Your task to perform on an android device: turn on location history Image 0: 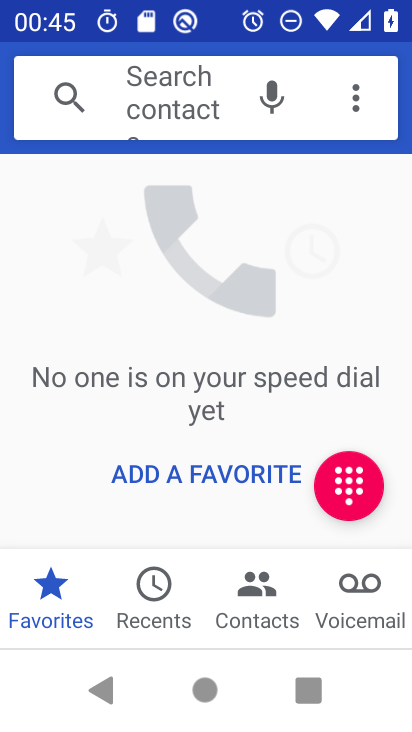
Step 0: press home button
Your task to perform on an android device: turn on location history Image 1: 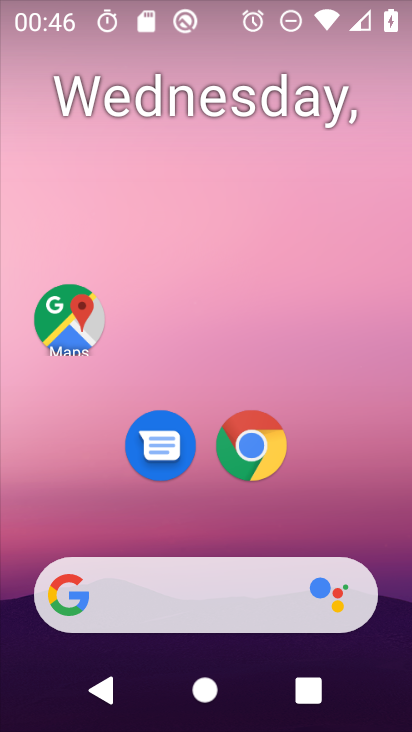
Step 1: drag from (288, 529) to (372, 62)
Your task to perform on an android device: turn on location history Image 2: 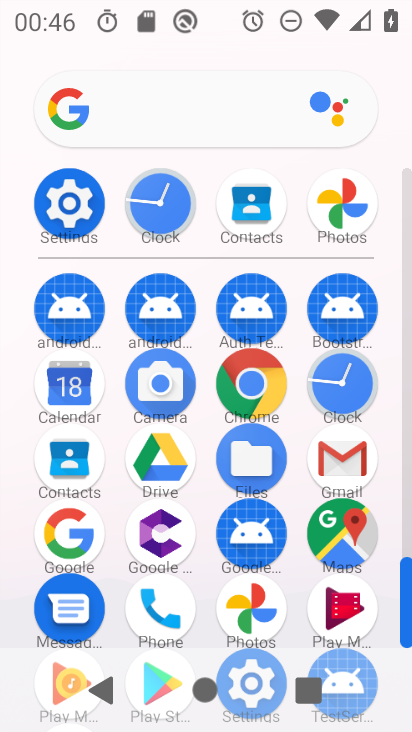
Step 2: click (80, 187)
Your task to perform on an android device: turn on location history Image 3: 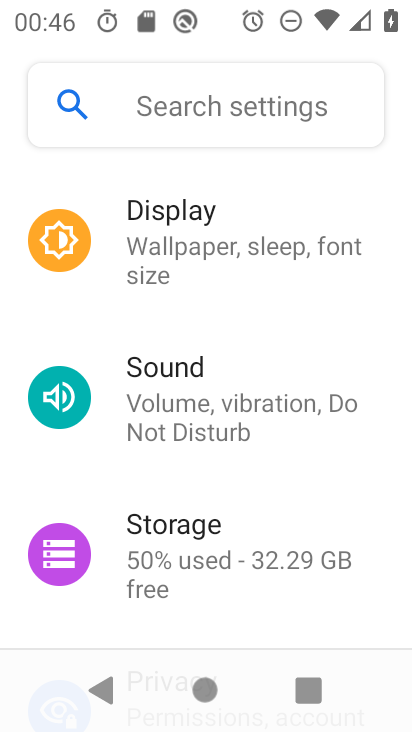
Step 3: drag from (307, 539) to (277, 335)
Your task to perform on an android device: turn on location history Image 4: 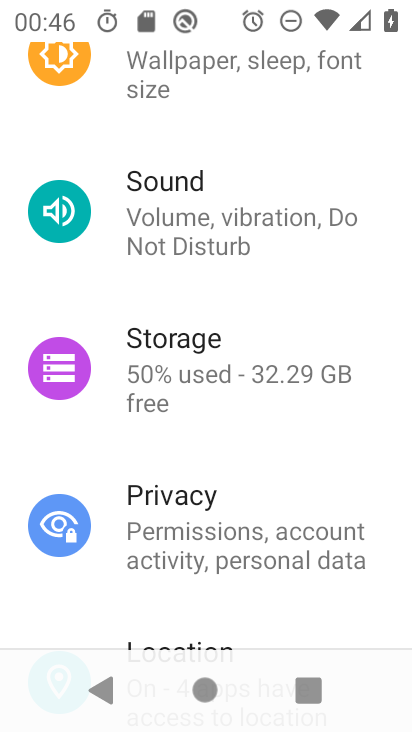
Step 4: drag from (358, 584) to (337, 319)
Your task to perform on an android device: turn on location history Image 5: 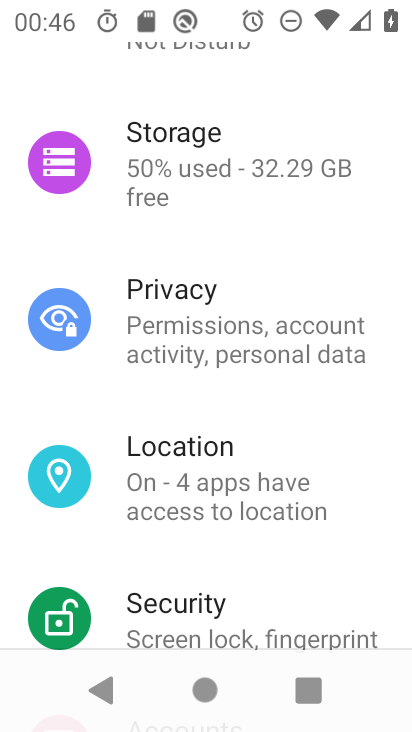
Step 5: click (271, 463)
Your task to perform on an android device: turn on location history Image 6: 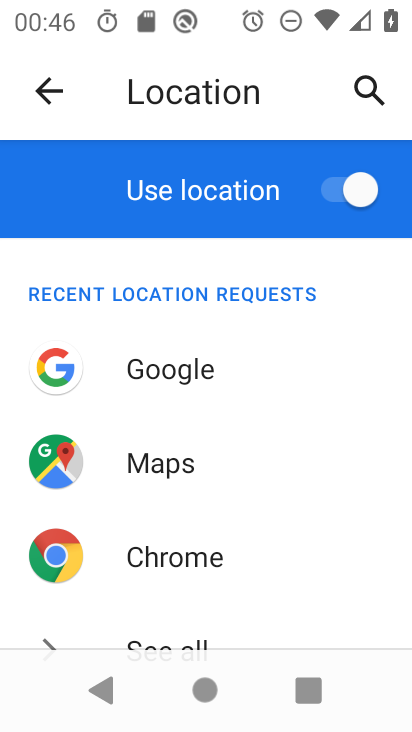
Step 6: drag from (300, 597) to (346, 217)
Your task to perform on an android device: turn on location history Image 7: 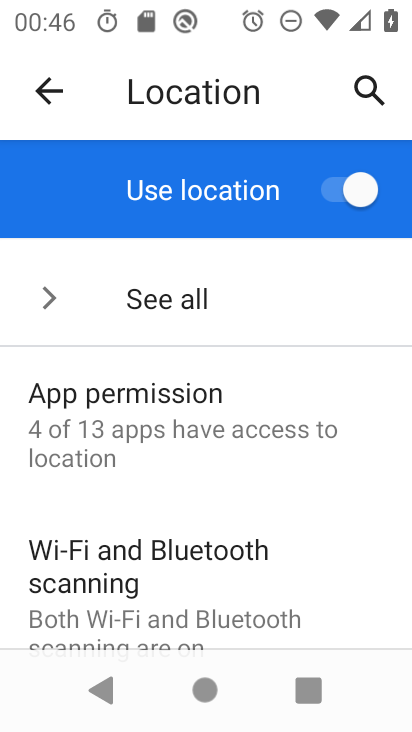
Step 7: drag from (243, 576) to (249, 222)
Your task to perform on an android device: turn on location history Image 8: 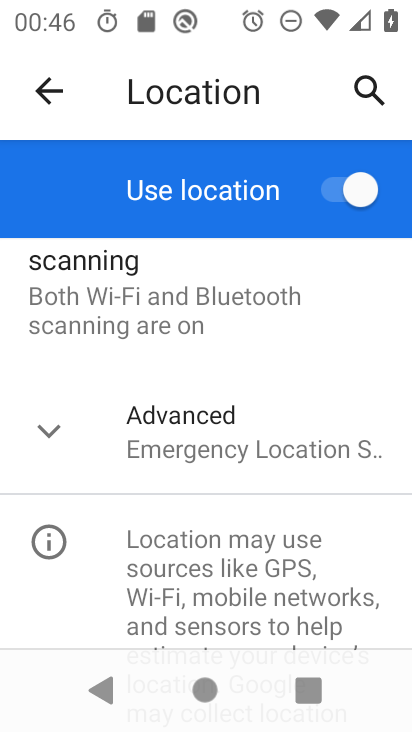
Step 8: click (323, 434)
Your task to perform on an android device: turn on location history Image 9: 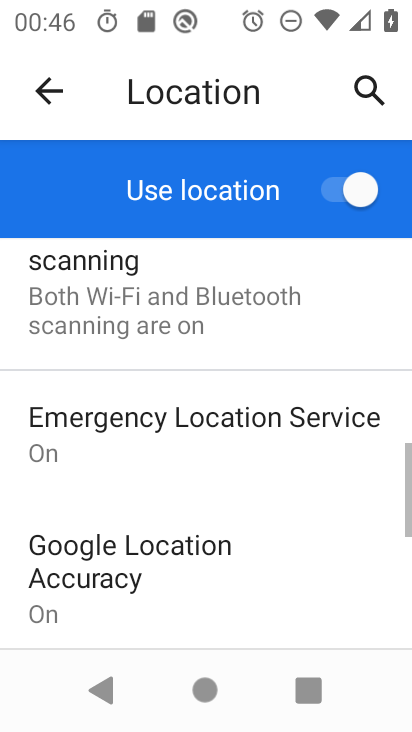
Step 9: drag from (321, 599) to (354, 307)
Your task to perform on an android device: turn on location history Image 10: 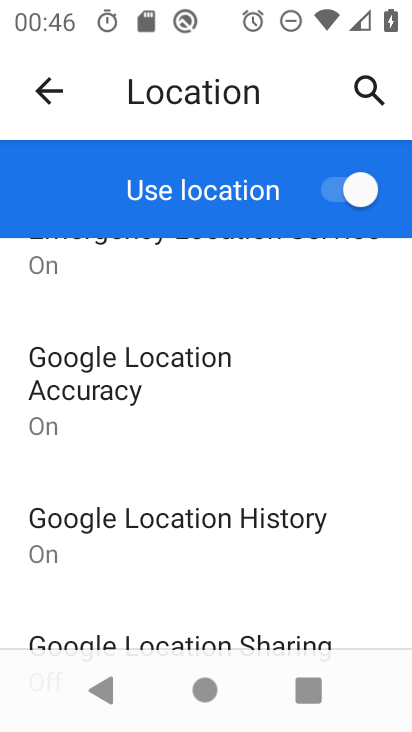
Step 10: click (198, 512)
Your task to perform on an android device: turn on location history Image 11: 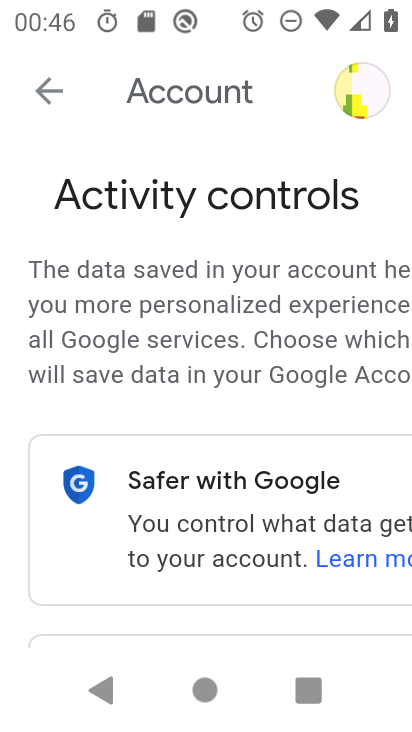
Step 11: drag from (158, 598) to (183, 242)
Your task to perform on an android device: turn on location history Image 12: 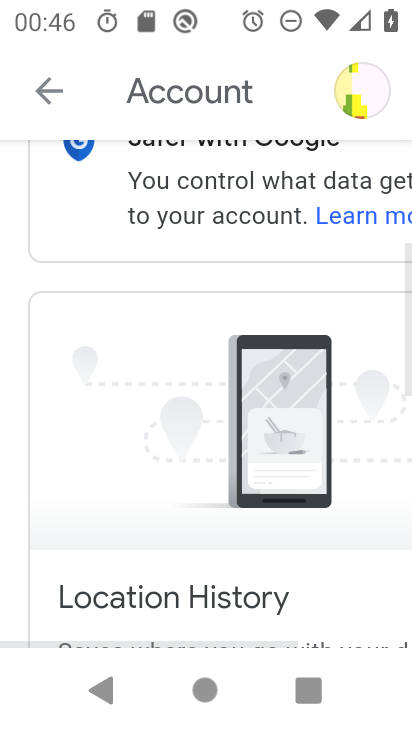
Step 12: drag from (280, 676) to (290, 295)
Your task to perform on an android device: turn on location history Image 13: 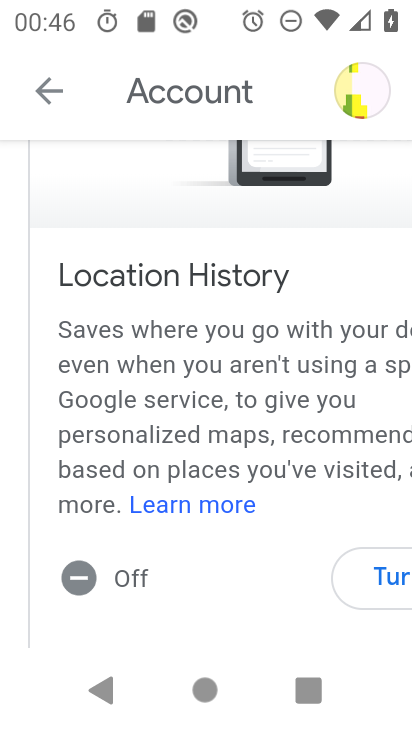
Step 13: click (390, 577)
Your task to perform on an android device: turn on location history Image 14: 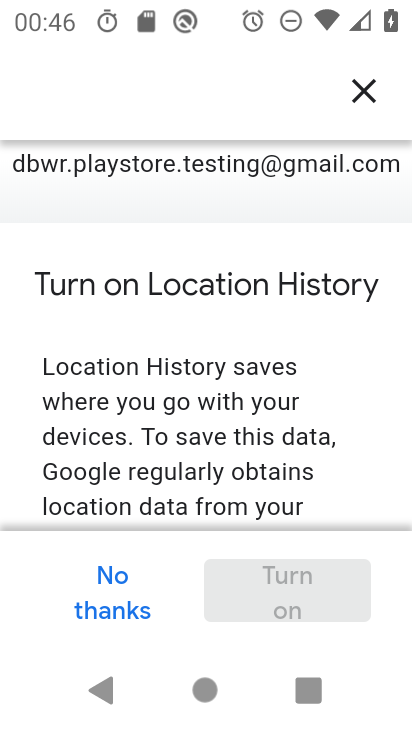
Step 14: drag from (296, 484) to (410, 328)
Your task to perform on an android device: turn on location history Image 15: 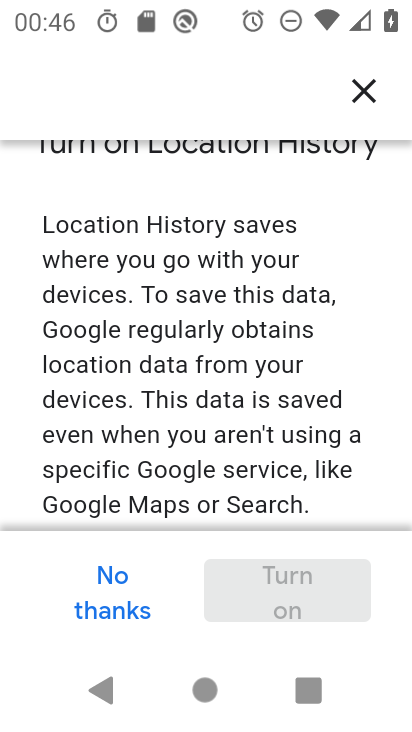
Step 15: drag from (290, 470) to (222, 126)
Your task to perform on an android device: turn on location history Image 16: 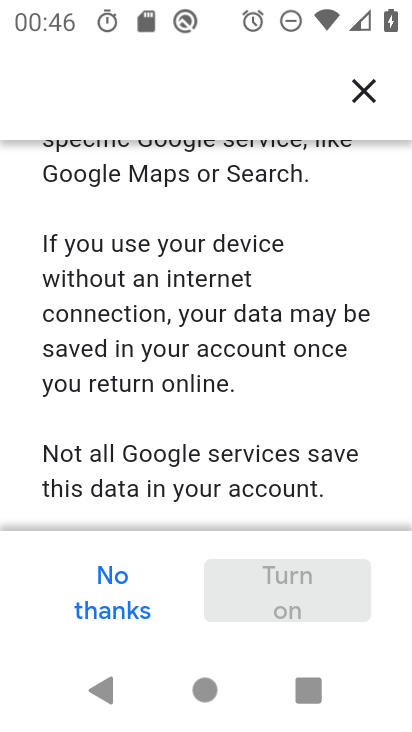
Step 16: drag from (243, 379) to (205, 122)
Your task to perform on an android device: turn on location history Image 17: 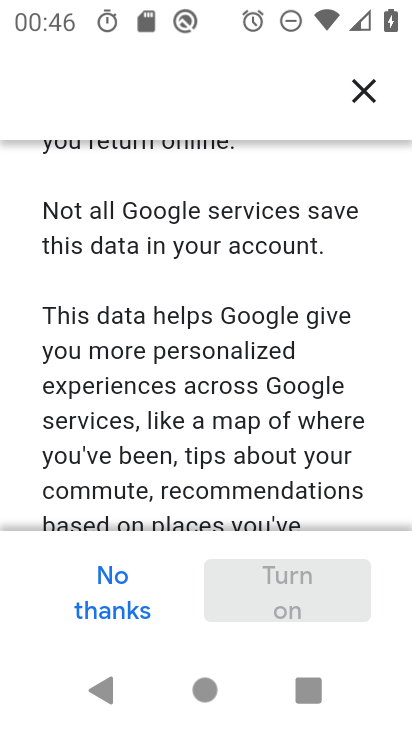
Step 17: drag from (241, 395) to (248, 221)
Your task to perform on an android device: turn on location history Image 18: 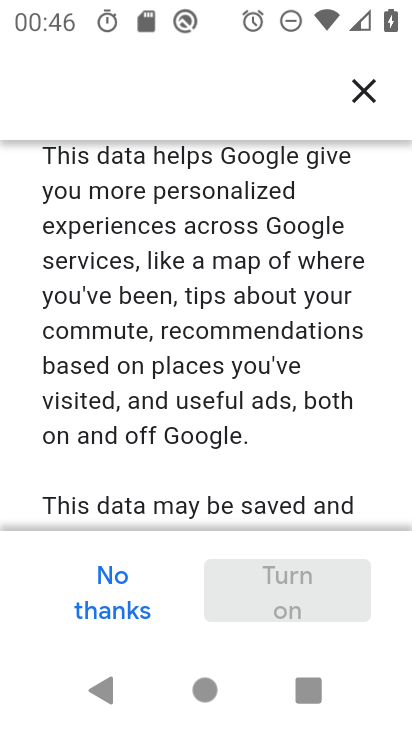
Step 18: drag from (287, 412) to (303, 265)
Your task to perform on an android device: turn on location history Image 19: 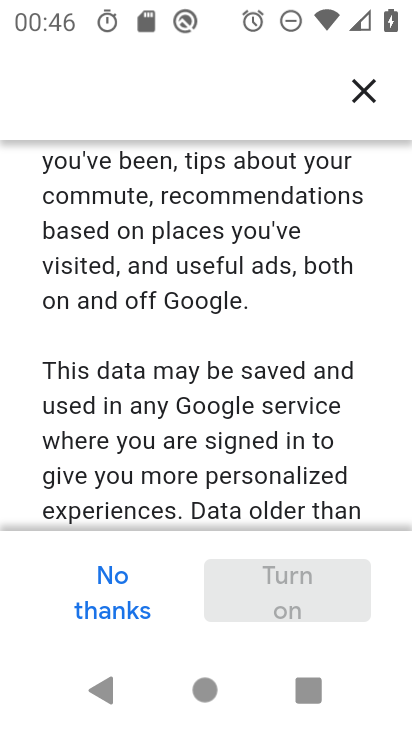
Step 19: drag from (333, 354) to (341, 258)
Your task to perform on an android device: turn on location history Image 20: 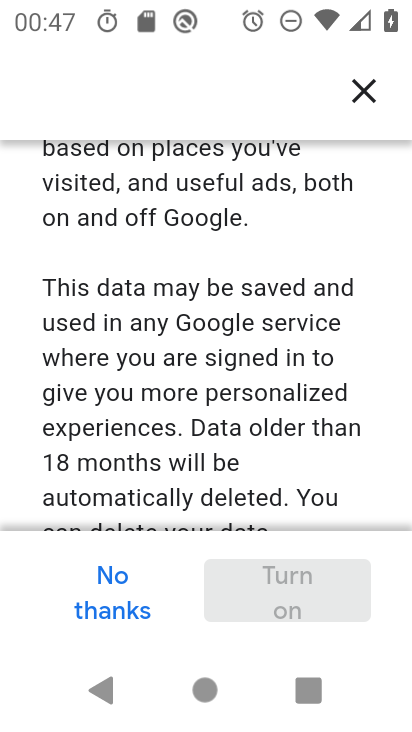
Step 20: drag from (363, 314) to (369, 162)
Your task to perform on an android device: turn on location history Image 21: 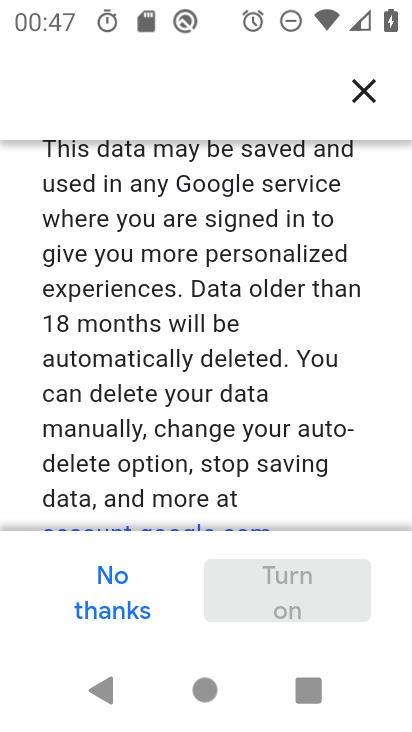
Step 21: drag from (370, 449) to (381, 196)
Your task to perform on an android device: turn on location history Image 22: 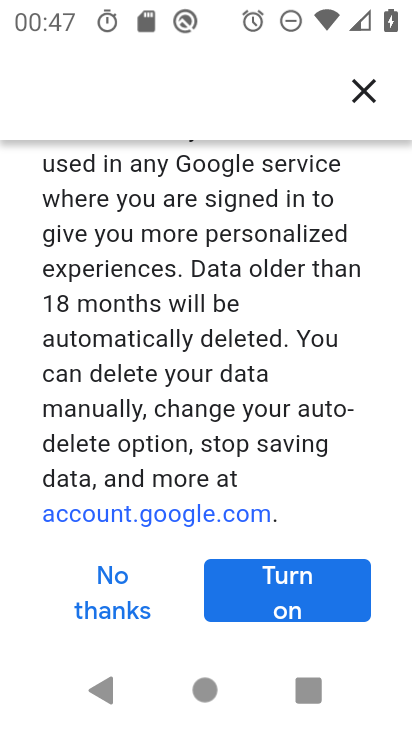
Step 22: drag from (373, 385) to (376, 259)
Your task to perform on an android device: turn on location history Image 23: 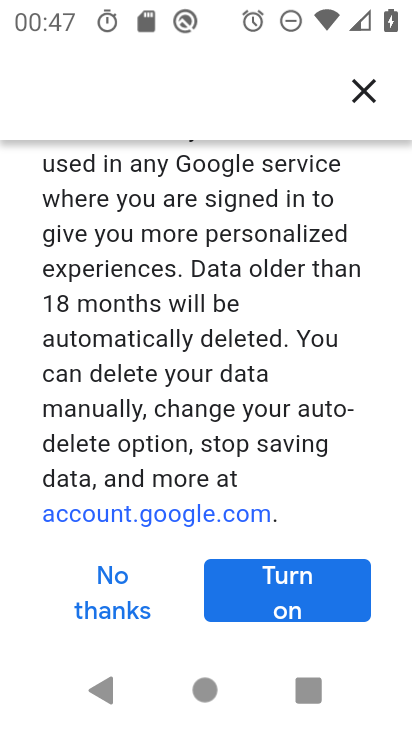
Step 23: click (280, 605)
Your task to perform on an android device: turn on location history Image 24: 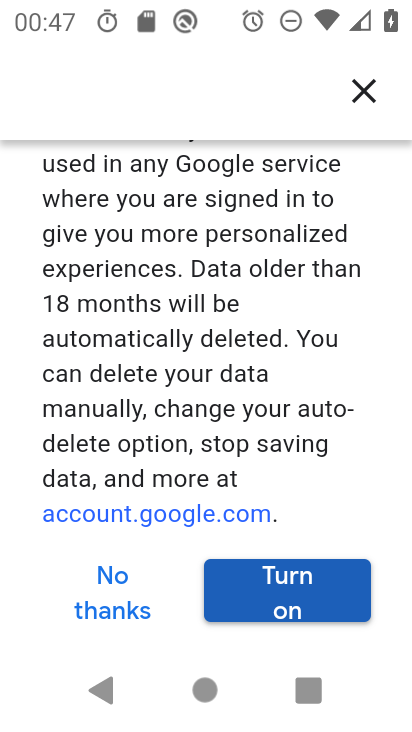
Step 24: click (338, 582)
Your task to perform on an android device: turn on location history Image 25: 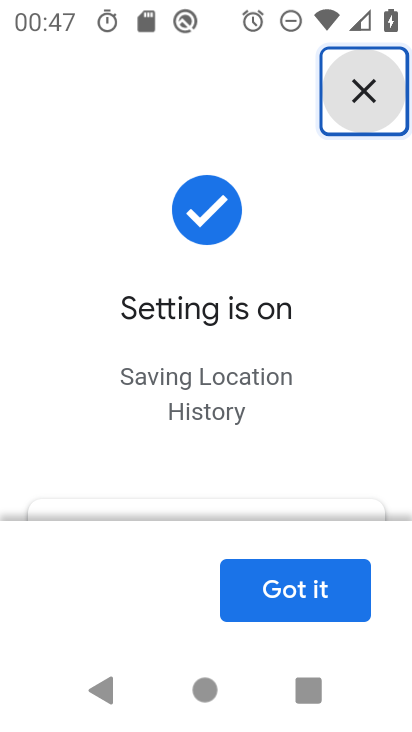
Step 25: task complete